Your task to perform on an android device: turn off location history Image 0: 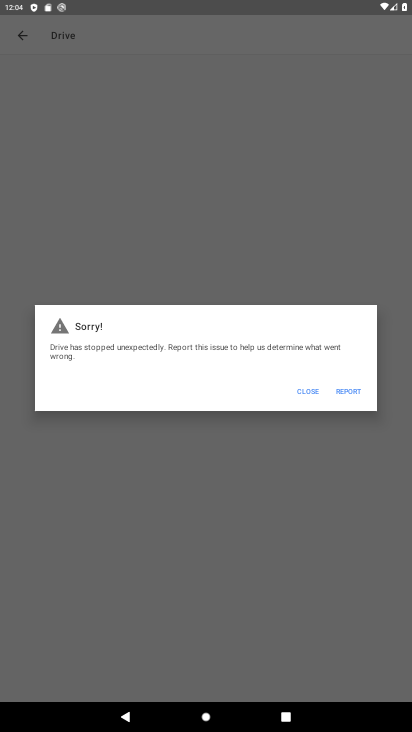
Step 0: drag from (334, 631) to (309, 461)
Your task to perform on an android device: turn off location history Image 1: 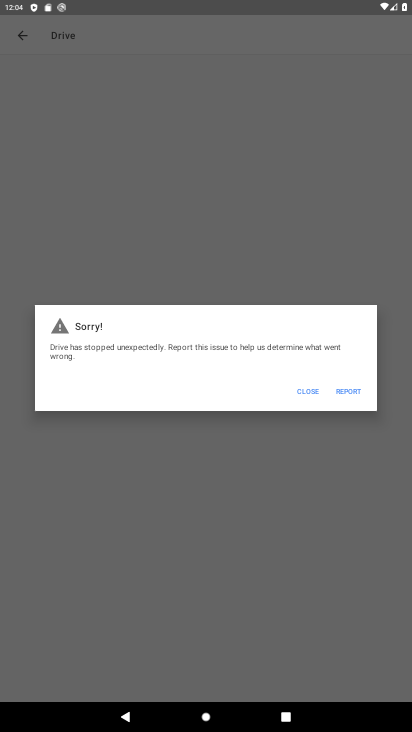
Step 1: press home button
Your task to perform on an android device: turn off location history Image 2: 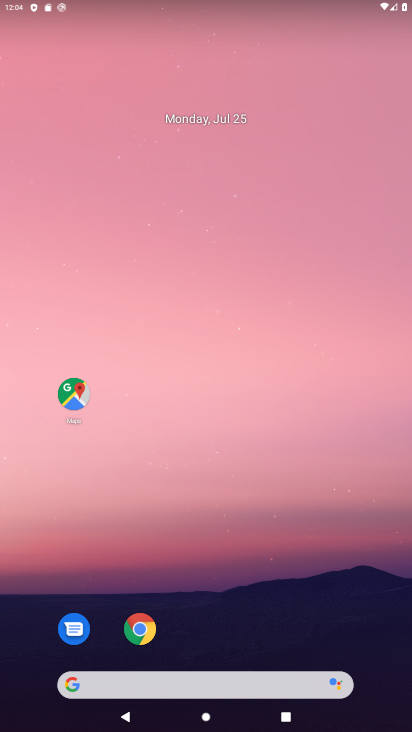
Step 2: click (62, 393)
Your task to perform on an android device: turn off location history Image 3: 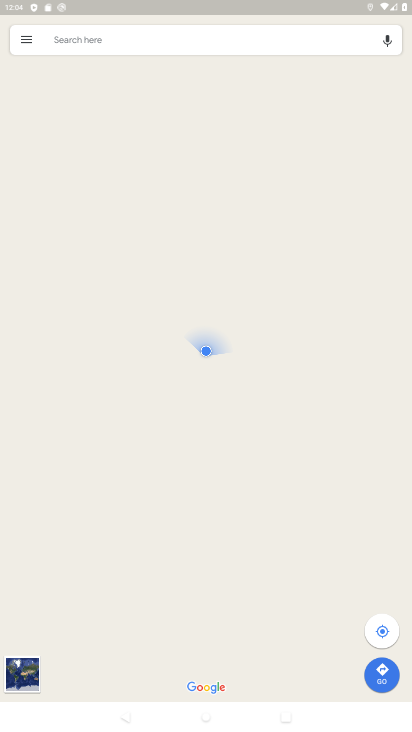
Step 3: click (28, 44)
Your task to perform on an android device: turn off location history Image 4: 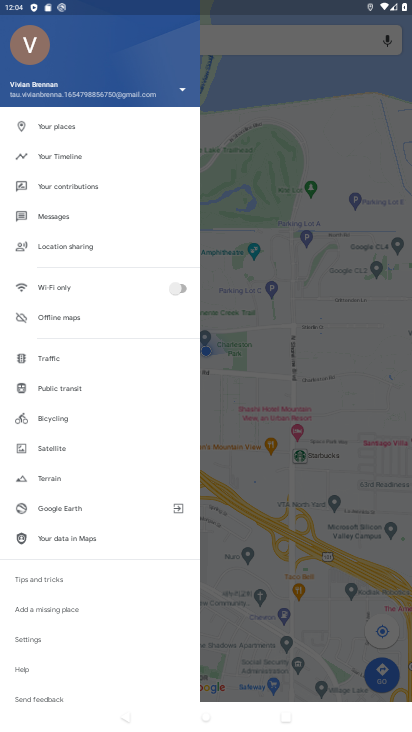
Step 4: click (52, 162)
Your task to perform on an android device: turn off location history Image 5: 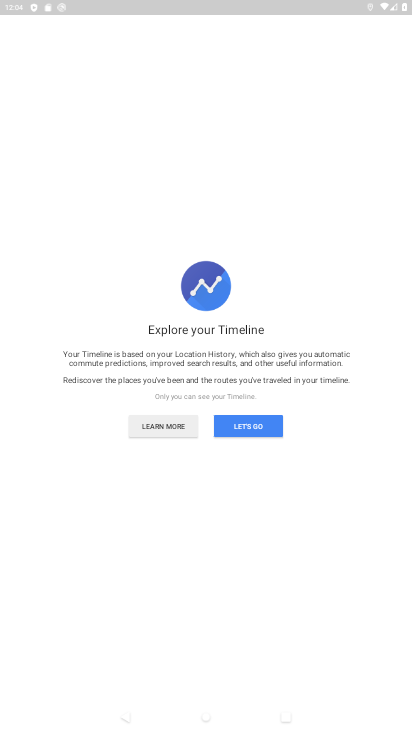
Step 5: click (265, 427)
Your task to perform on an android device: turn off location history Image 6: 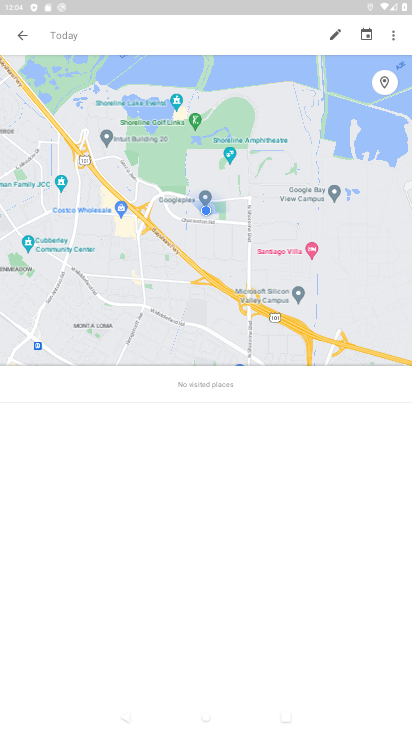
Step 6: click (399, 37)
Your task to perform on an android device: turn off location history Image 7: 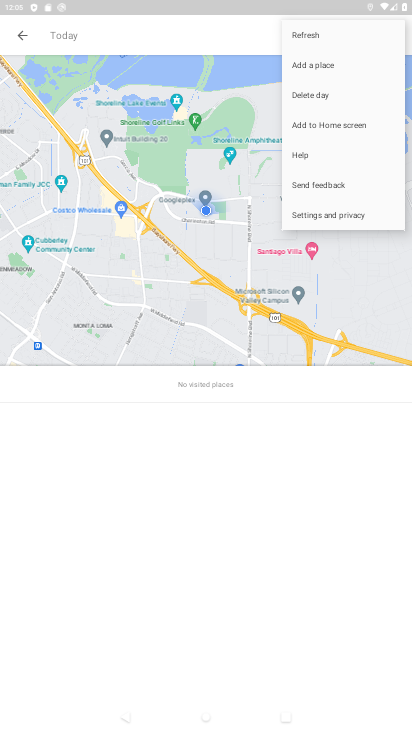
Step 7: click (359, 214)
Your task to perform on an android device: turn off location history Image 8: 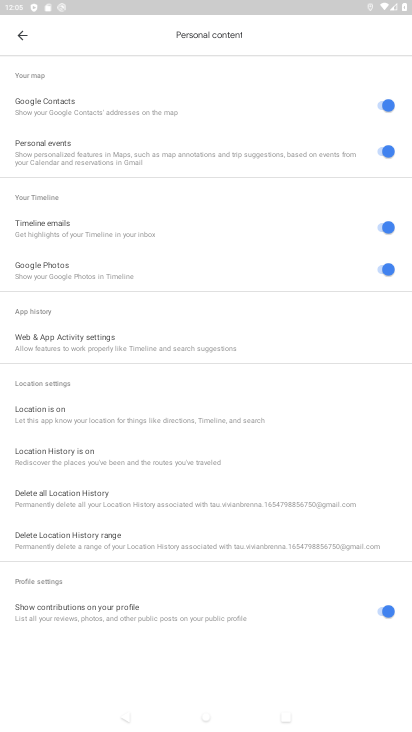
Step 8: click (163, 452)
Your task to perform on an android device: turn off location history Image 9: 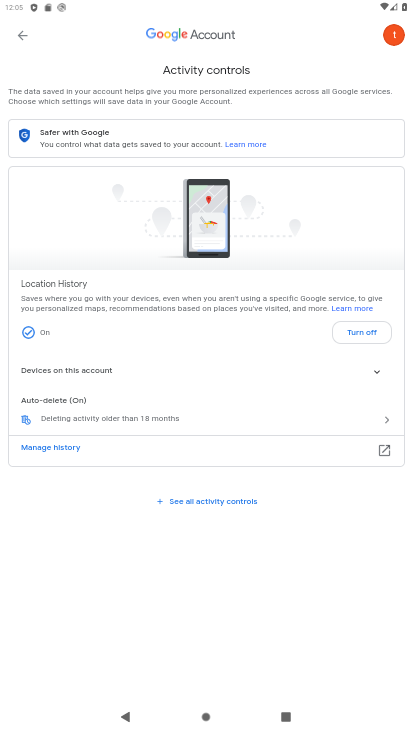
Step 9: click (367, 336)
Your task to perform on an android device: turn off location history Image 10: 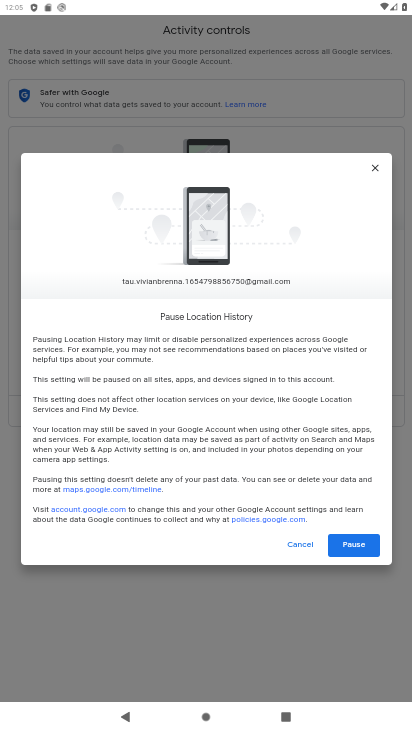
Step 10: click (357, 547)
Your task to perform on an android device: turn off location history Image 11: 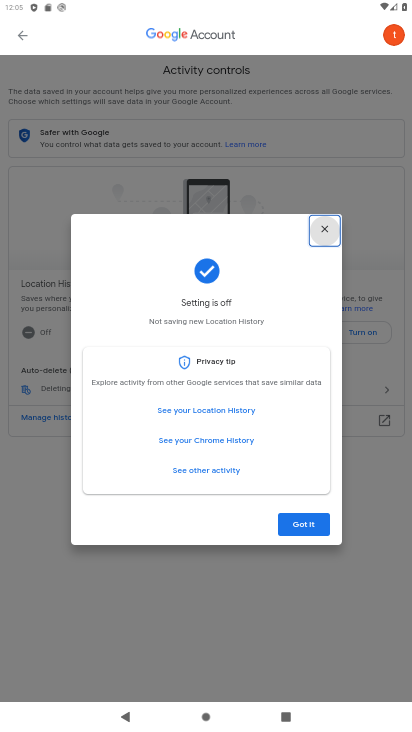
Step 11: click (311, 528)
Your task to perform on an android device: turn off location history Image 12: 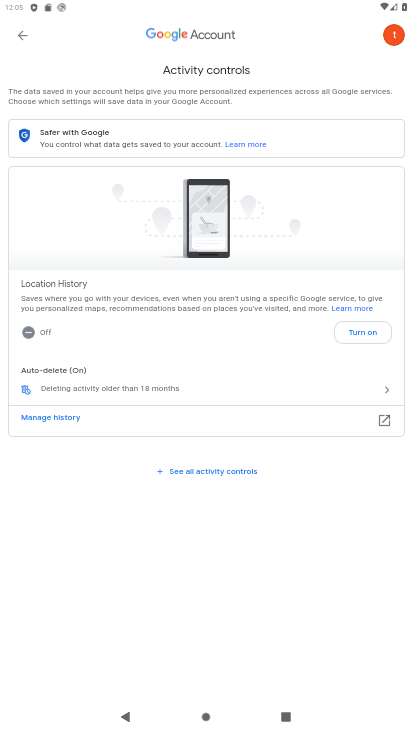
Step 12: task complete